Your task to perform on an android device: show emergency info Image 0: 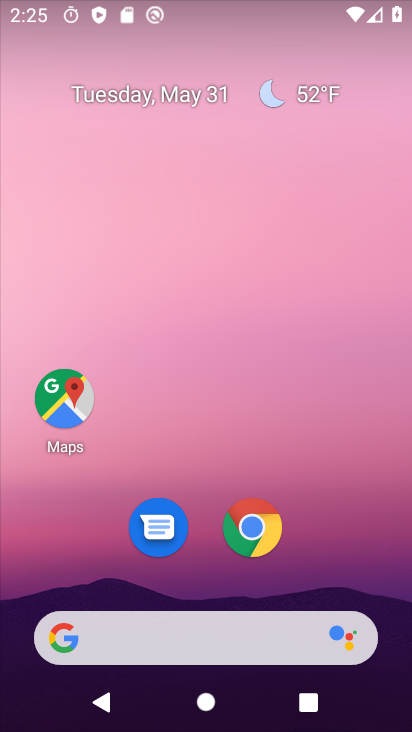
Step 0: drag from (63, 603) to (142, 292)
Your task to perform on an android device: show emergency info Image 1: 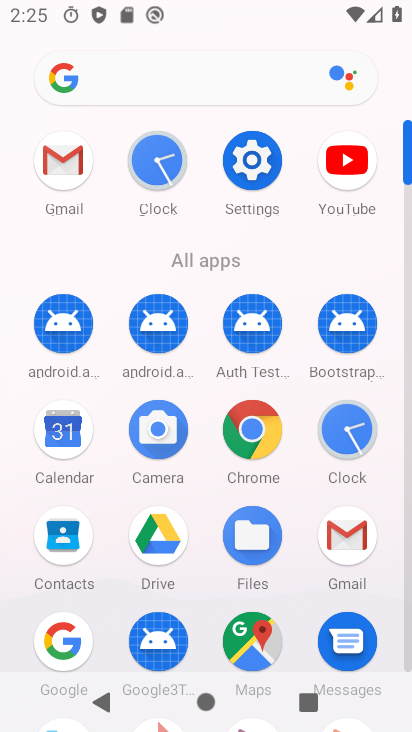
Step 1: drag from (128, 676) to (212, 352)
Your task to perform on an android device: show emergency info Image 2: 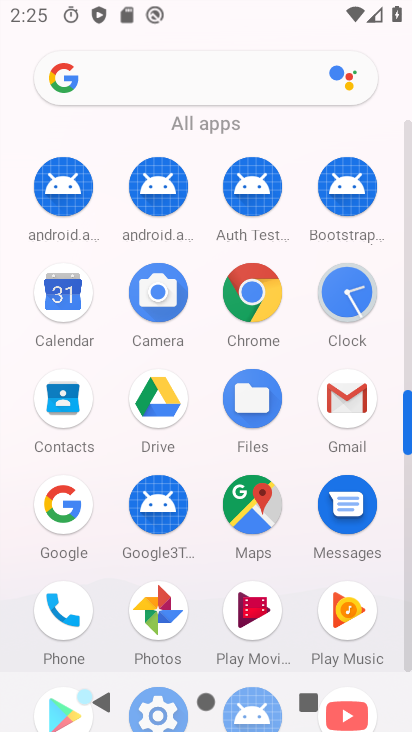
Step 2: drag from (177, 663) to (255, 367)
Your task to perform on an android device: show emergency info Image 3: 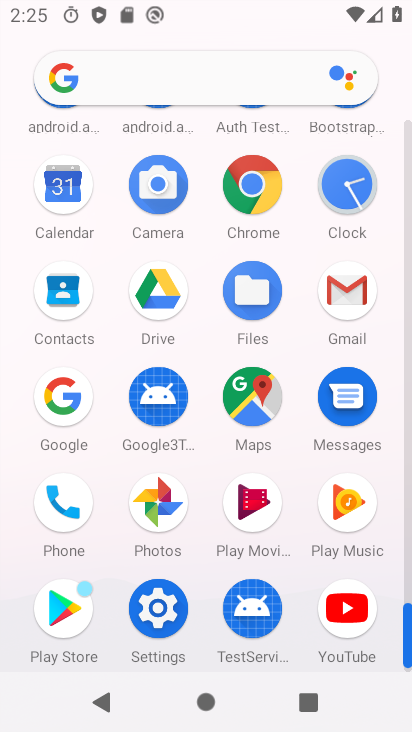
Step 3: click (168, 592)
Your task to perform on an android device: show emergency info Image 4: 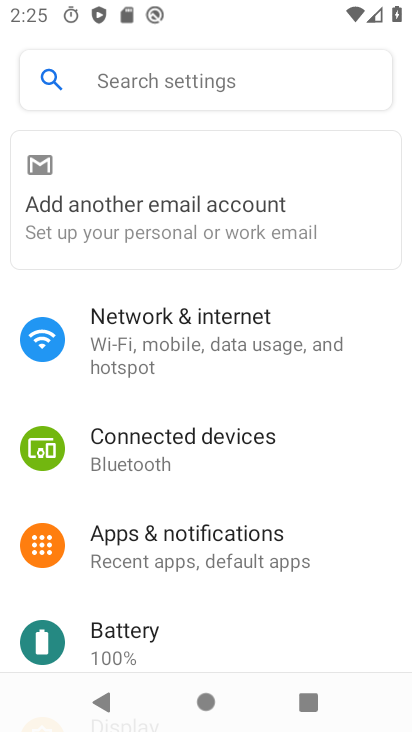
Step 4: drag from (167, 591) to (290, 53)
Your task to perform on an android device: show emergency info Image 5: 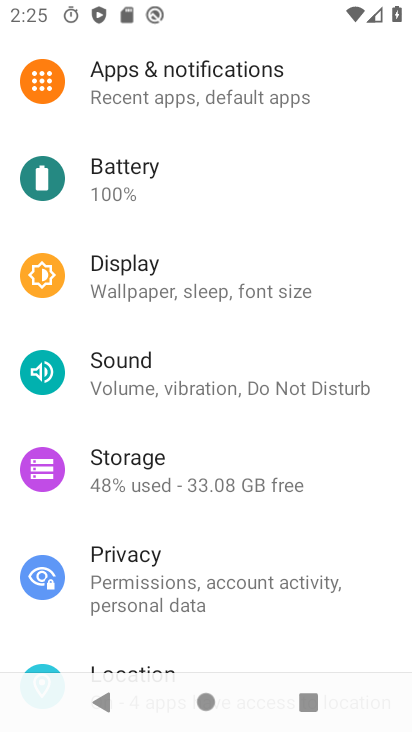
Step 5: drag from (157, 515) to (286, 21)
Your task to perform on an android device: show emergency info Image 6: 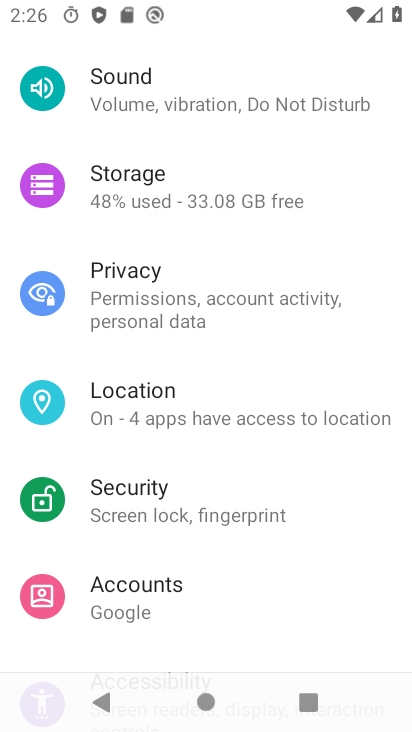
Step 6: drag from (212, 601) to (302, 136)
Your task to perform on an android device: show emergency info Image 7: 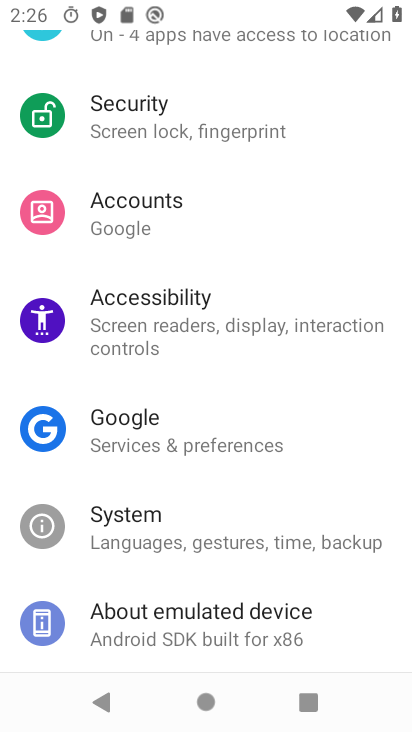
Step 7: click (223, 634)
Your task to perform on an android device: show emergency info Image 8: 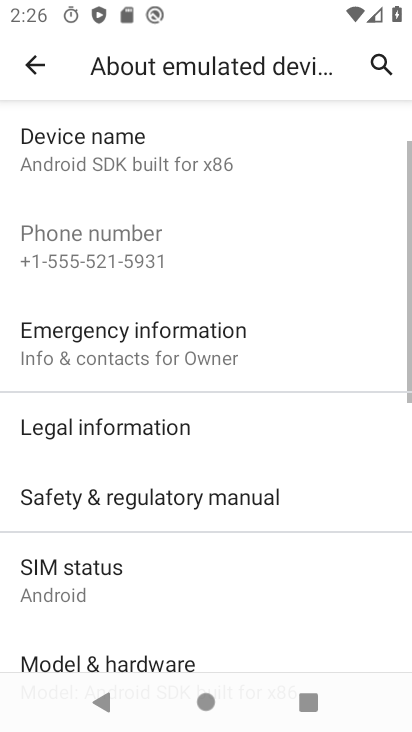
Step 8: click (224, 334)
Your task to perform on an android device: show emergency info Image 9: 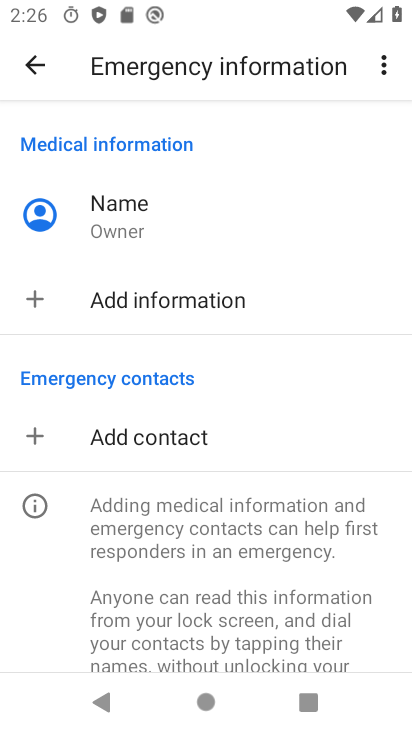
Step 9: task complete